Your task to perform on an android device: Open location settings Image 0: 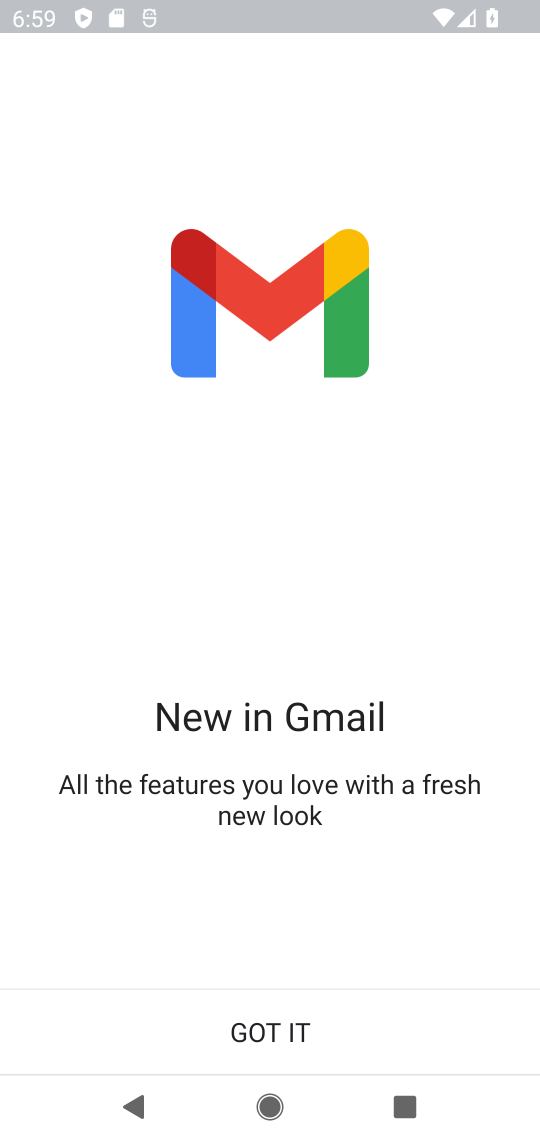
Step 0: press home button
Your task to perform on an android device: Open location settings Image 1: 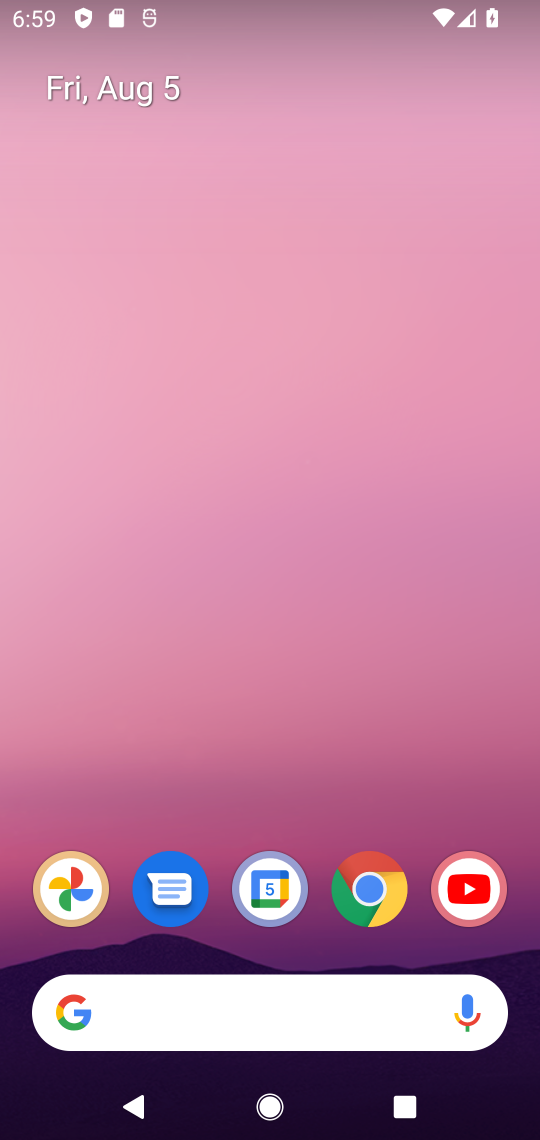
Step 1: drag from (305, 971) to (292, 429)
Your task to perform on an android device: Open location settings Image 2: 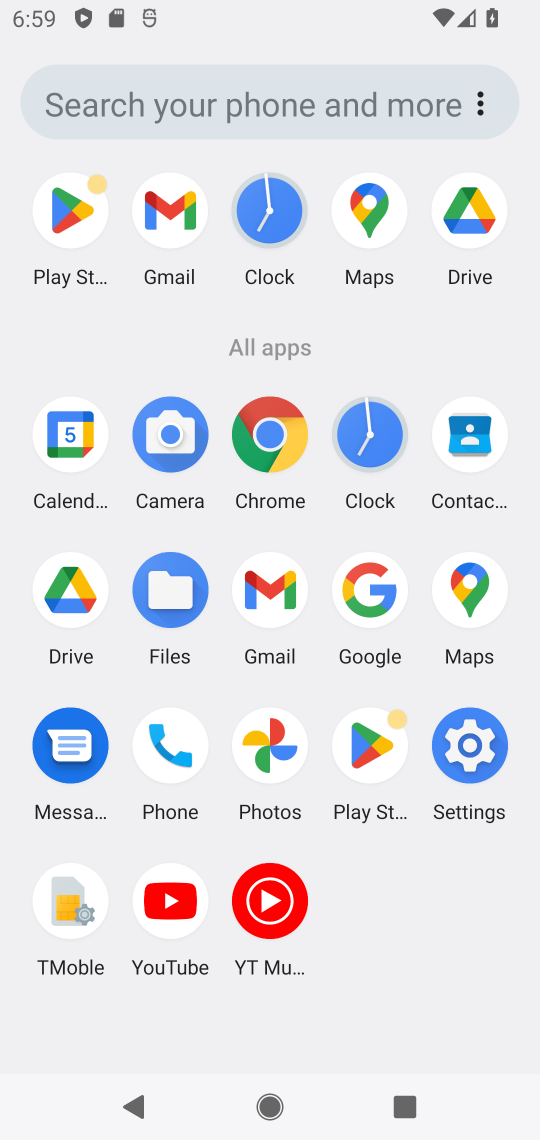
Step 2: click (452, 762)
Your task to perform on an android device: Open location settings Image 3: 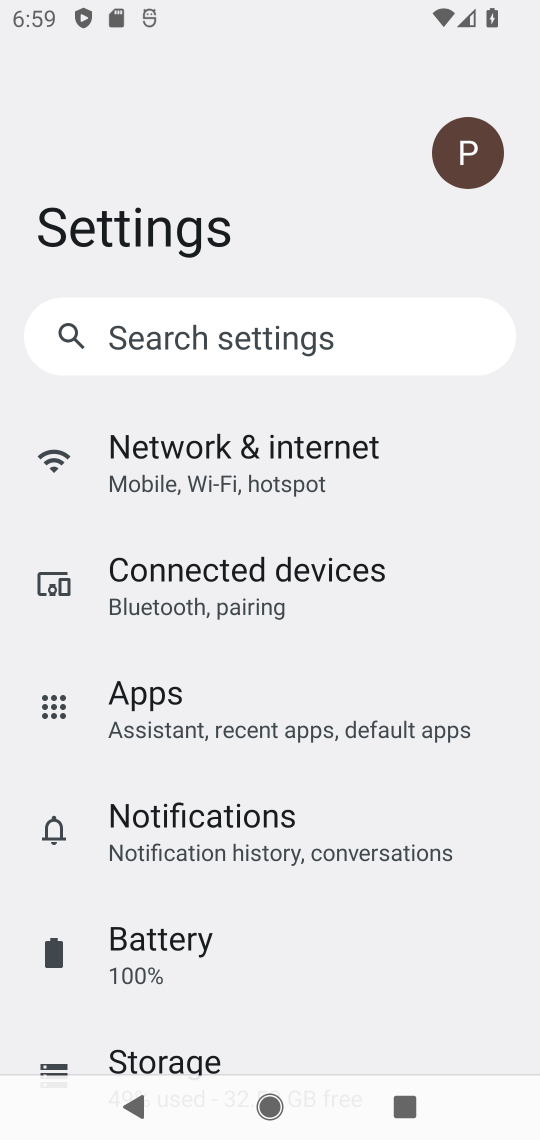
Step 3: drag from (191, 979) to (186, 485)
Your task to perform on an android device: Open location settings Image 4: 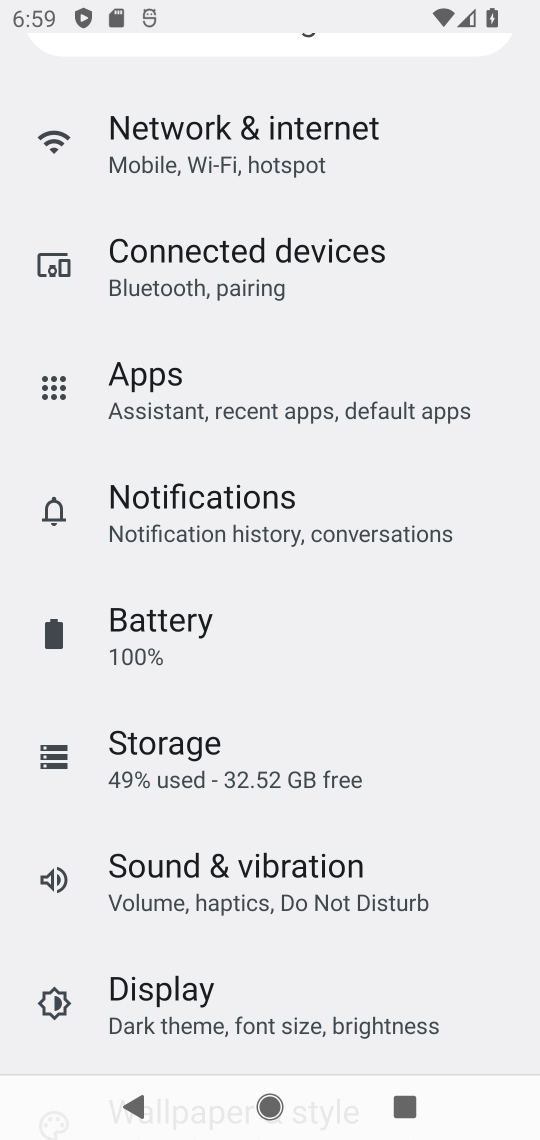
Step 4: drag from (181, 1007) to (181, 591)
Your task to perform on an android device: Open location settings Image 5: 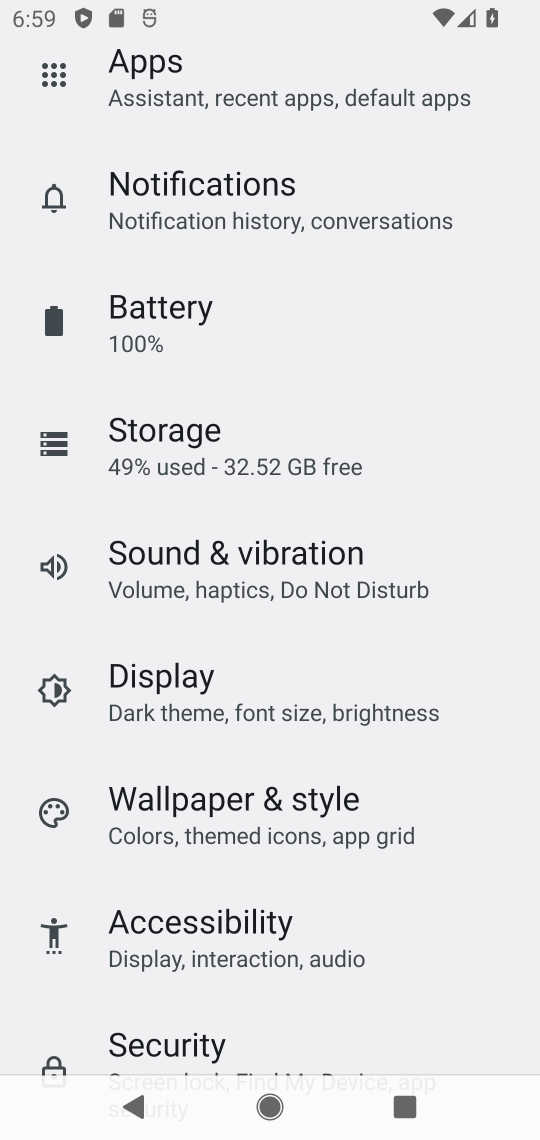
Step 5: drag from (186, 1020) to (189, 636)
Your task to perform on an android device: Open location settings Image 6: 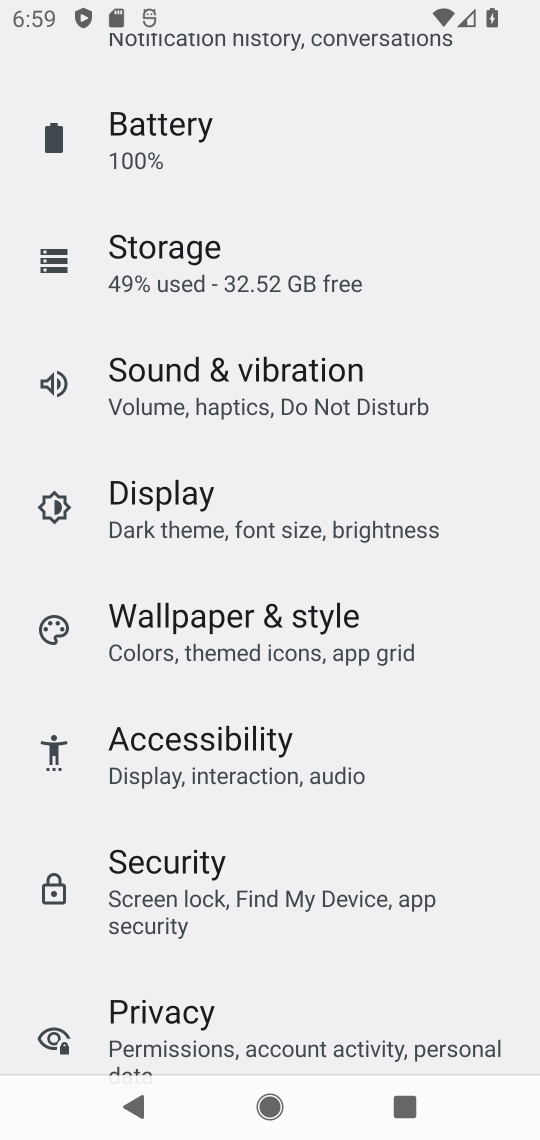
Step 6: drag from (183, 1043) to (207, 734)
Your task to perform on an android device: Open location settings Image 7: 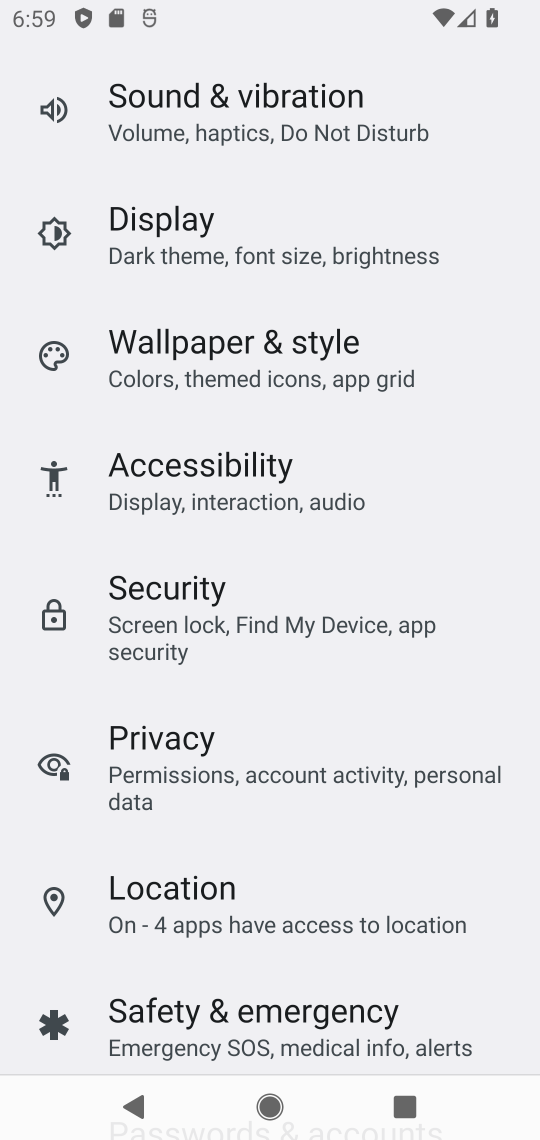
Step 7: click (170, 909)
Your task to perform on an android device: Open location settings Image 8: 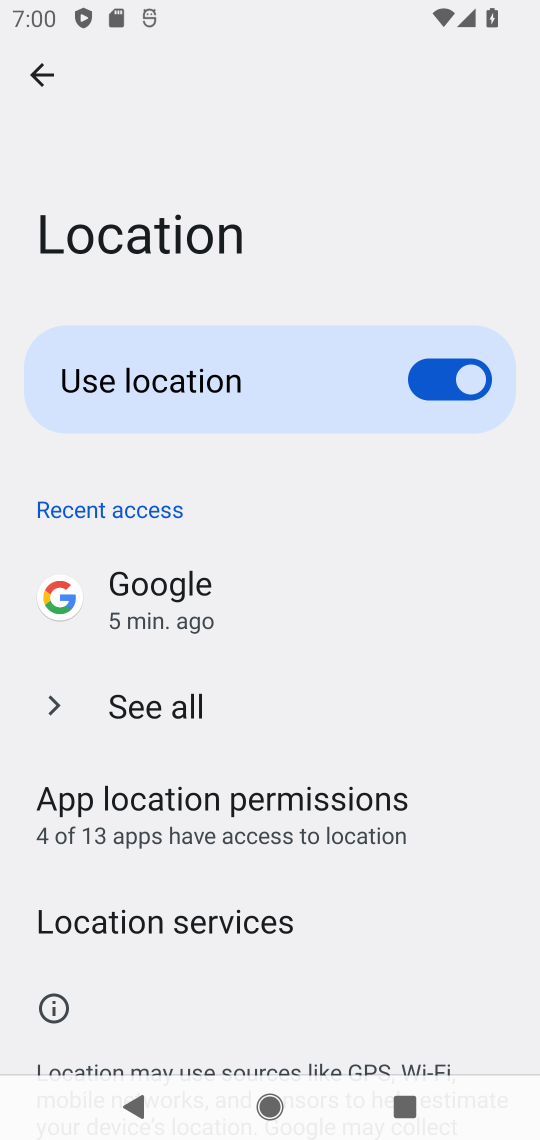
Step 8: task complete